Your task to perform on an android device: turn smart compose on in the gmail app Image 0: 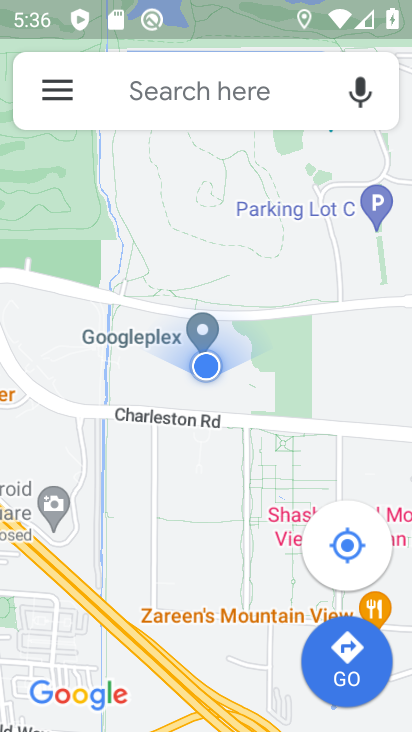
Step 0: press home button
Your task to perform on an android device: turn smart compose on in the gmail app Image 1: 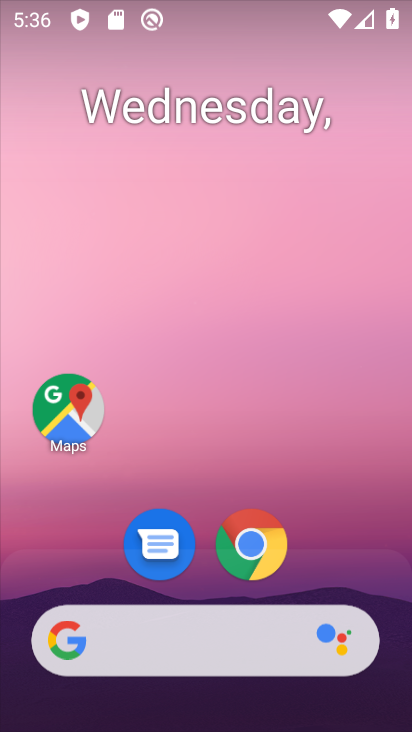
Step 1: drag from (205, 458) to (214, 3)
Your task to perform on an android device: turn smart compose on in the gmail app Image 2: 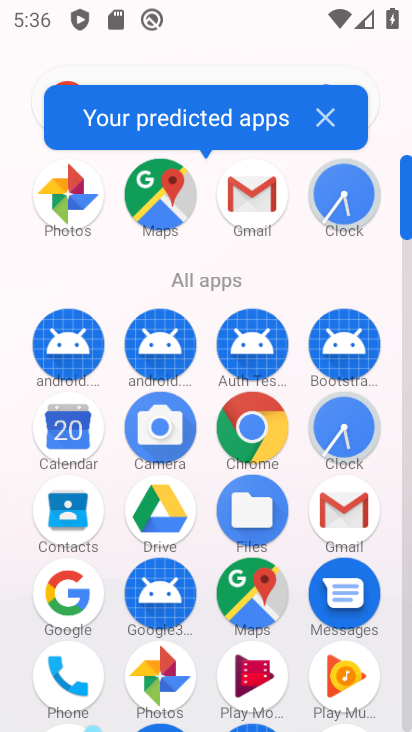
Step 2: click (247, 199)
Your task to perform on an android device: turn smart compose on in the gmail app Image 3: 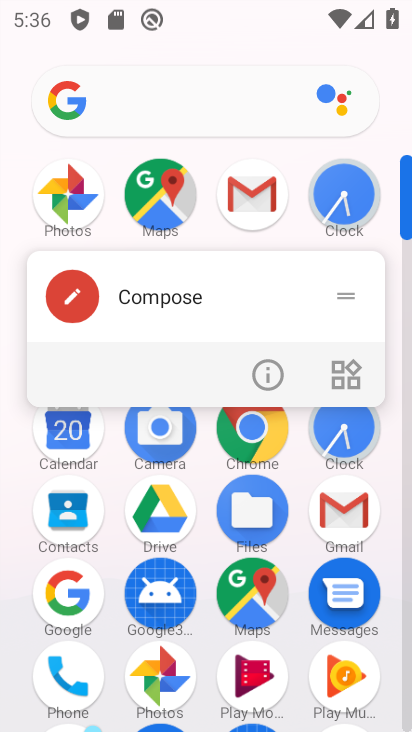
Step 3: click (246, 201)
Your task to perform on an android device: turn smart compose on in the gmail app Image 4: 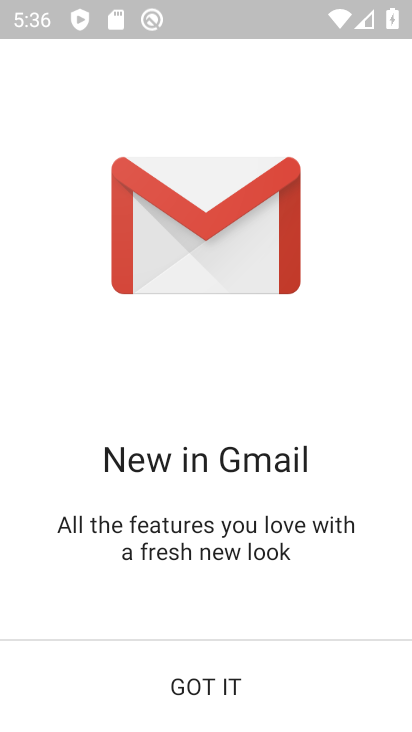
Step 4: click (224, 686)
Your task to perform on an android device: turn smart compose on in the gmail app Image 5: 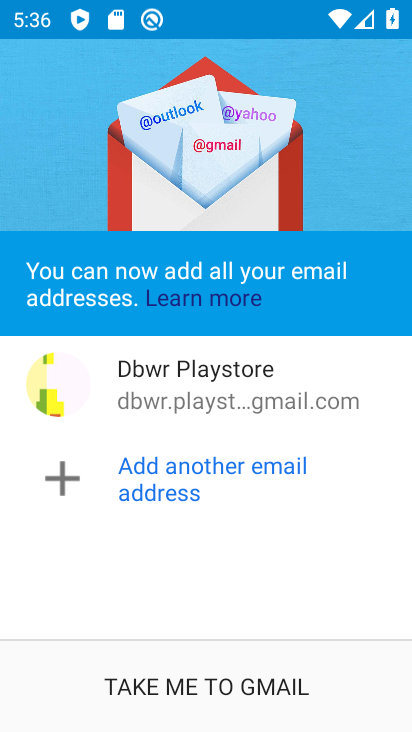
Step 5: click (232, 674)
Your task to perform on an android device: turn smart compose on in the gmail app Image 6: 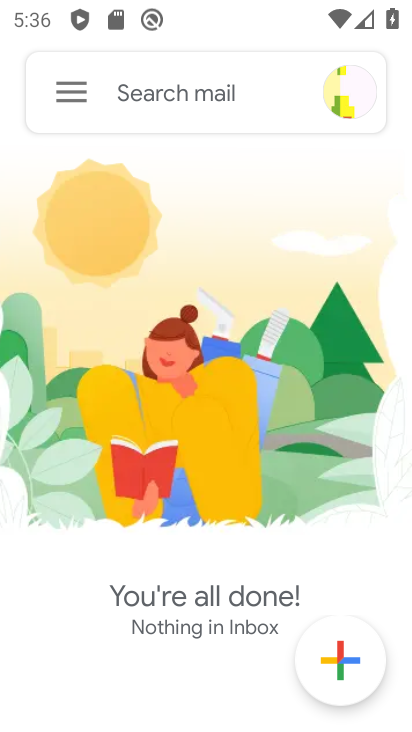
Step 6: click (75, 93)
Your task to perform on an android device: turn smart compose on in the gmail app Image 7: 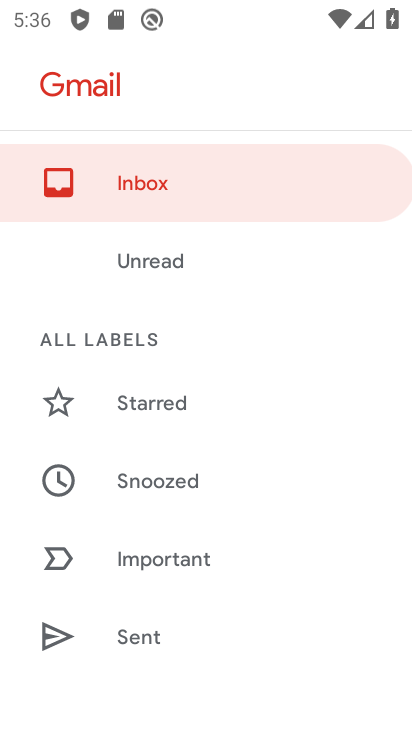
Step 7: drag from (194, 546) to (177, 152)
Your task to perform on an android device: turn smart compose on in the gmail app Image 8: 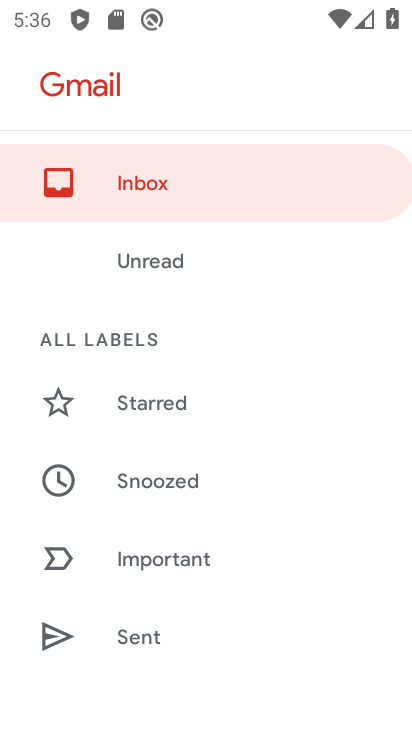
Step 8: drag from (215, 601) to (189, 232)
Your task to perform on an android device: turn smart compose on in the gmail app Image 9: 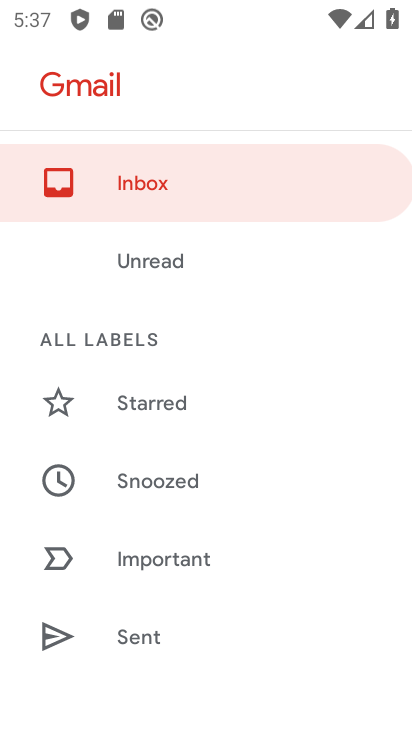
Step 9: drag from (235, 532) to (253, 246)
Your task to perform on an android device: turn smart compose on in the gmail app Image 10: 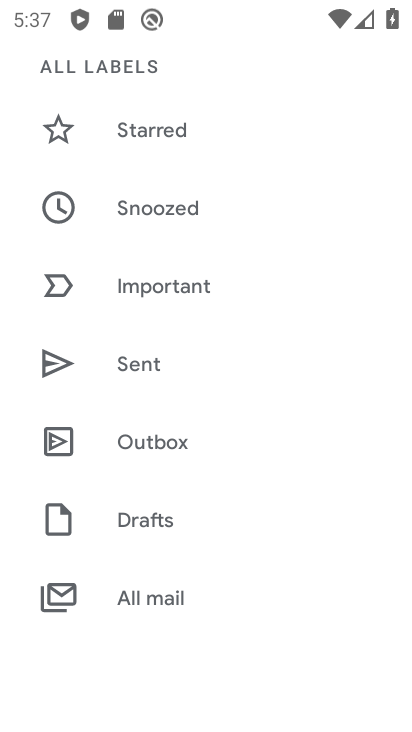
Step 10: drag from (228, 615) to (217, 113)
Your task to perform on an android device: turn smart compose on in the gmail app Image 11: 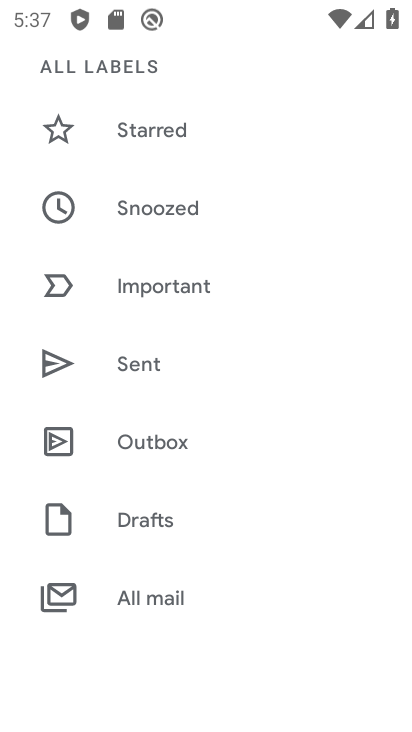
Step 11: drag from (250, 578) to (215, 129)
Your task to perform on an android device: turn smart compose on in the gmail app Image 12: 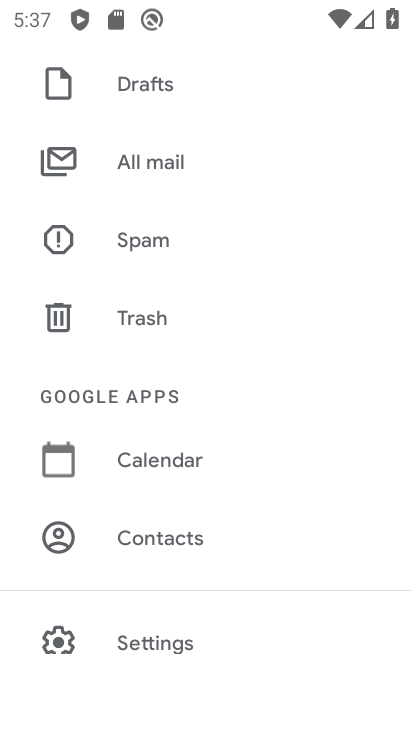
Step 12: click (184, 630)
Your task to perform on an android device: turn smart compose on in the gmail app Image 13: 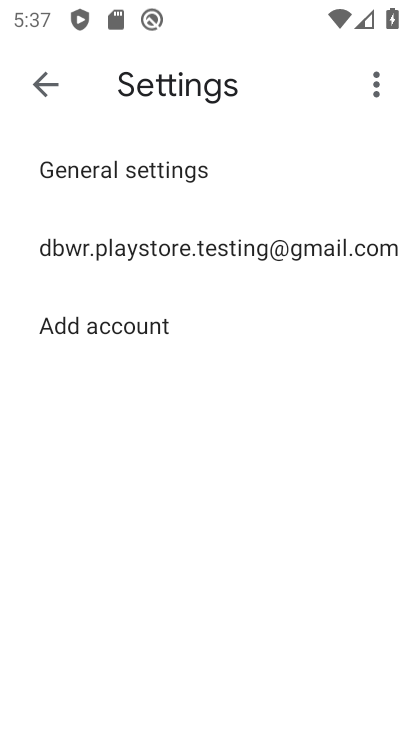
Step 13: click (154, 242)
Your task to perform on an android device: turn smart compose on in the gmail app Image 14: 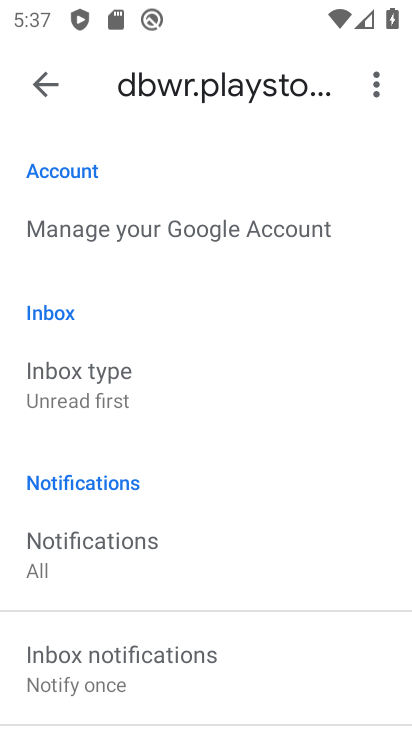
Step 14: task complete